Your task to perform on an android device: check android version Image 0: 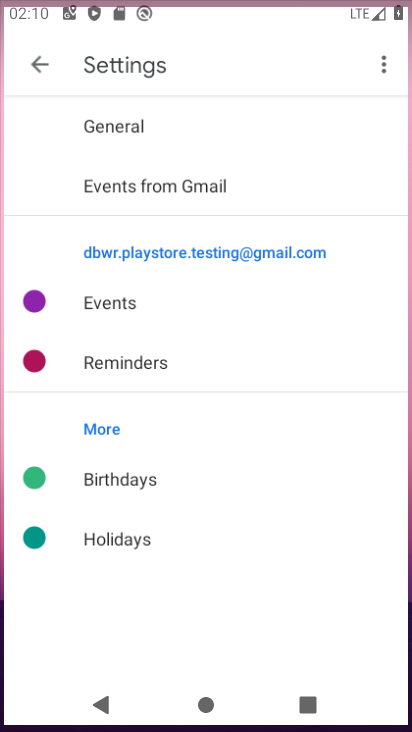
Step 0: drag from (93, 537) to (151, 113)
Your task to perform on an android device: check android version Image 1: 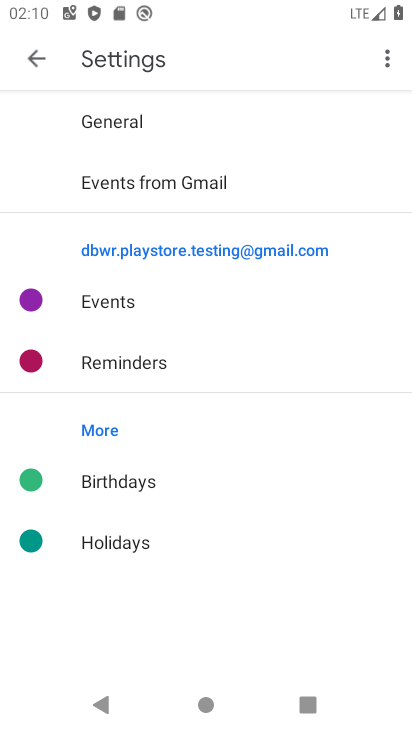
Step 1: press home button
Your task to perform on an android device: check android version Image 2: 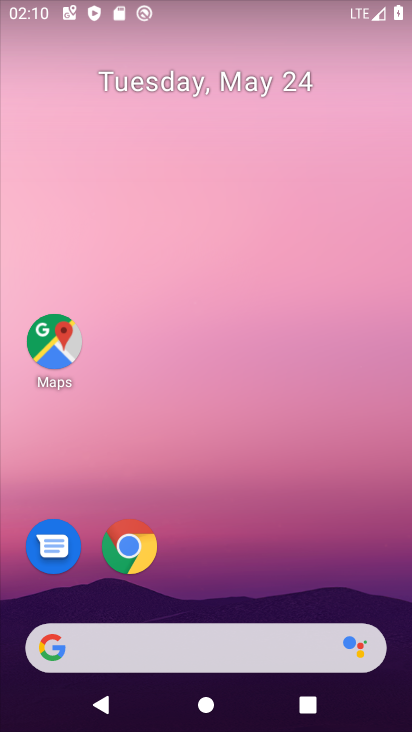
Step 2: drag from (177, 600) to (219, 231)
Your task to perform on an android device: check android version Image 3: 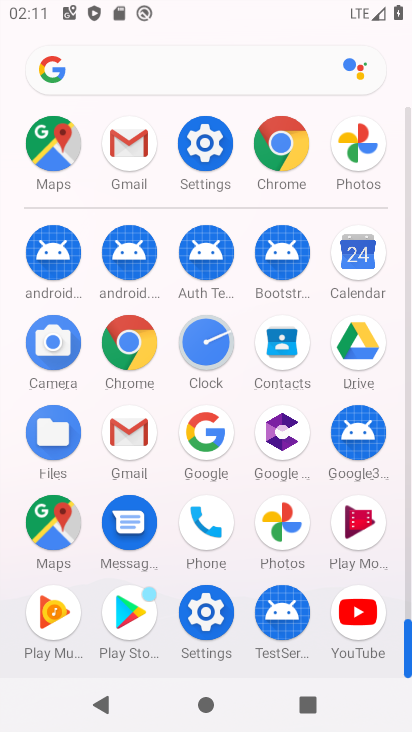
Step 3: click (200, 144)
Your task to perform on an android device: check android version Image 4: 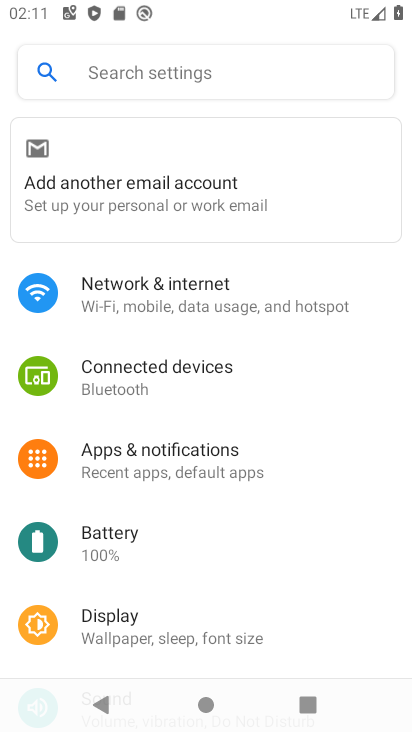
Step 4: drag from (207, 590) to (273, 56)
Your task to perform on an android device: check android version Image 5: 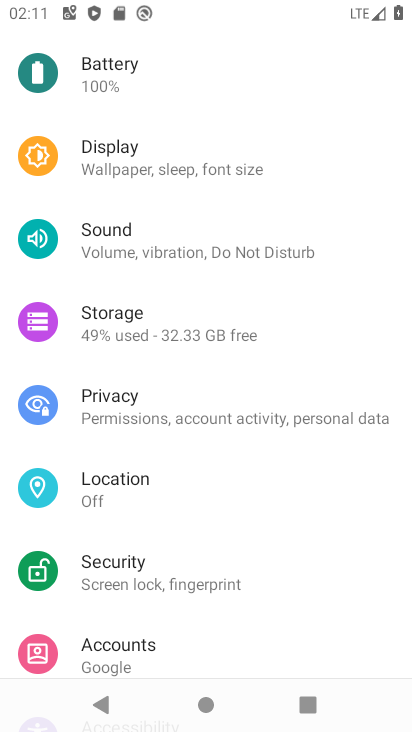
Step 5: drag from (160, 567) to (240, 132)
Your task to perform on an android device: check android version Image 6: 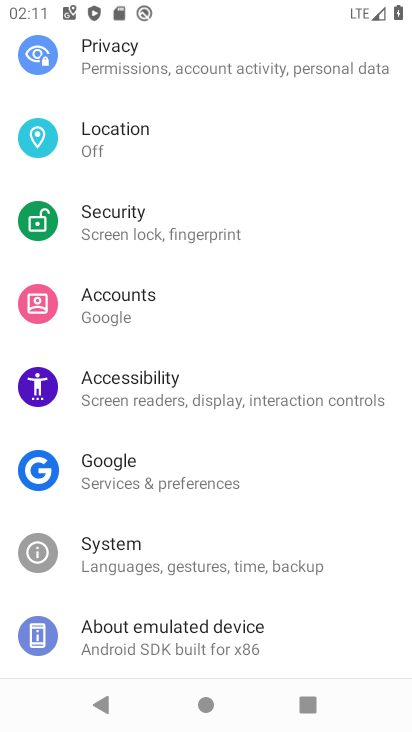
Step 6: click (158, 625)
Your task to perform on an android device: check android version Image 7: 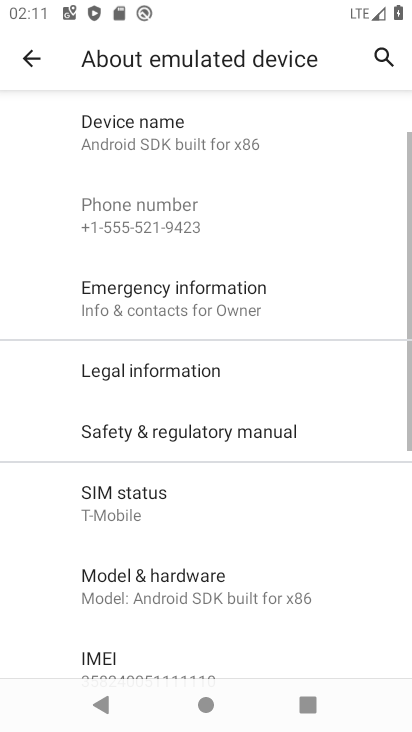
Step 7: drag from (188, 577) to (366, 21)
Your task to perform on an android device: check android version Image 8: 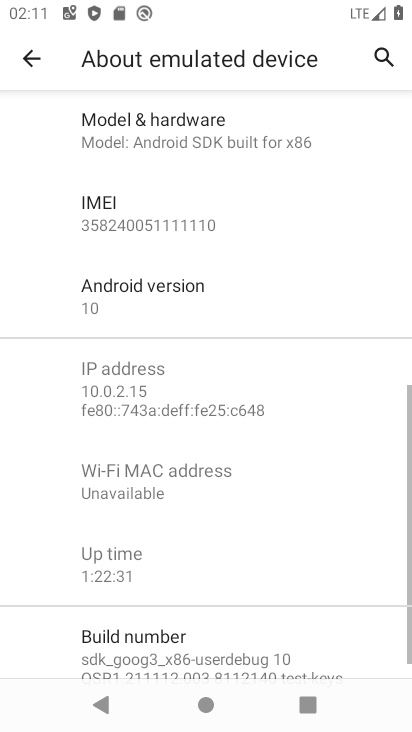
Step 8: click (185, 302)
Your task to perform on an android device: check android version Image 9: 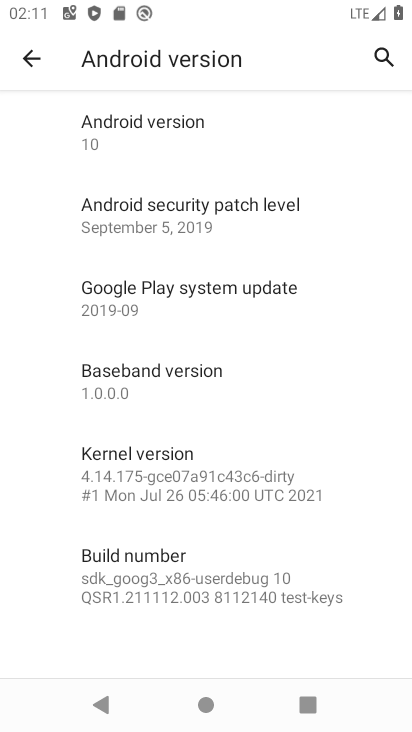
Step 9: click (145, 120)
Your task to perform on an android device: check android version Image 10: 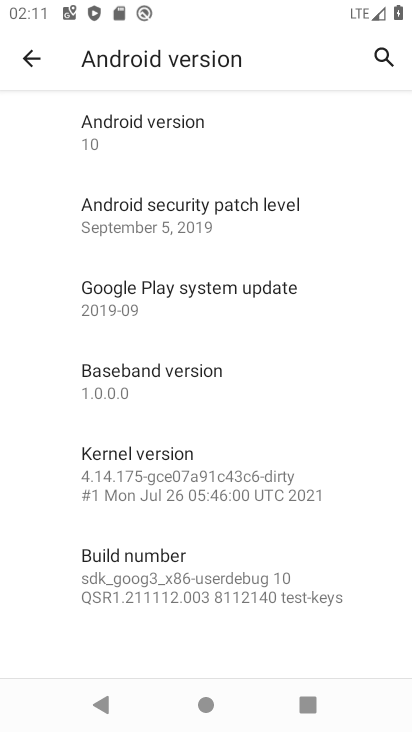
Step 10: task complete